Your task to perform on an android device: Turn off the flashlight Image 0: 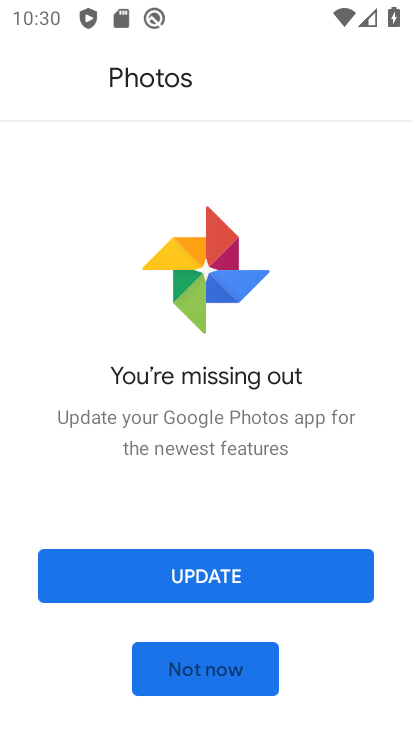
Step 0: press home button
Your task to perform on an android device: Turn off the flashlight Image 1: 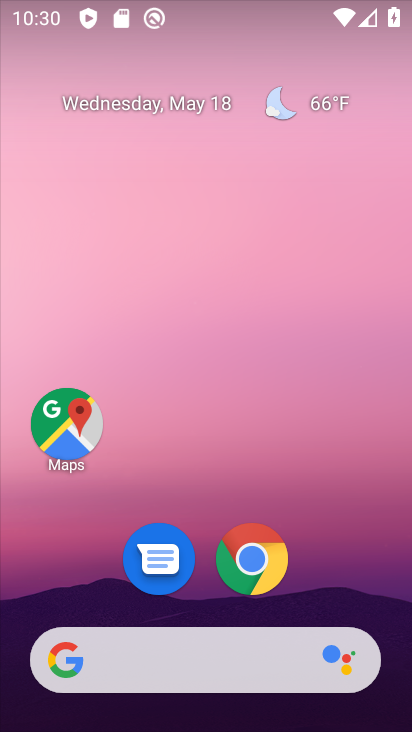
Step 1: drag from (192, 601) to (247, 179)
Your task to perform on an android device: Turn off the flashlight Image 2: 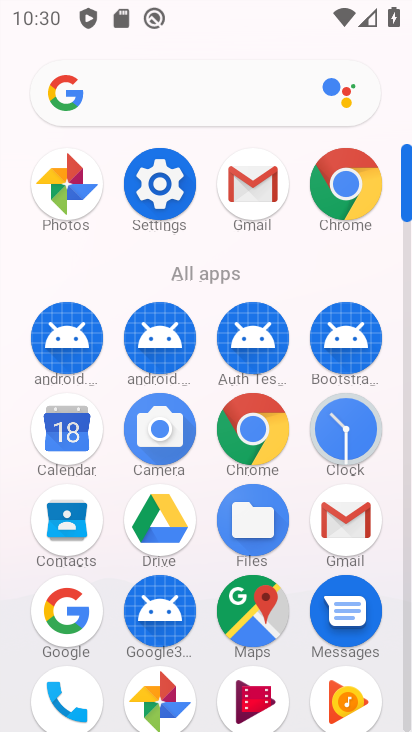
Step 2: click (169, 189)
Your task to perform on an android device: Turn off the flashlight Image 3: 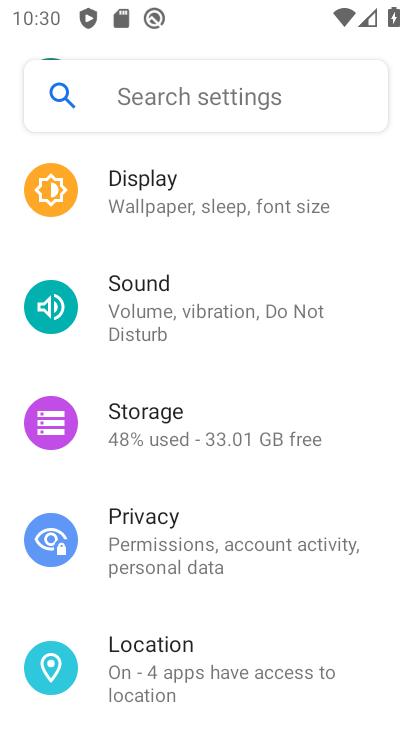
Step 3: click (187, 213)
Your task to perform on an android device: Turn off the flashlight Image 4: 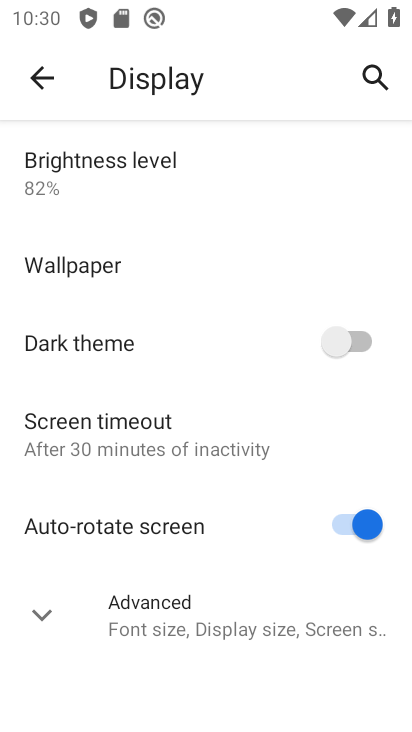
Step 4: task complete